Your task to perform on an android device: What's a good restaurant in Phoenix? Image 0: 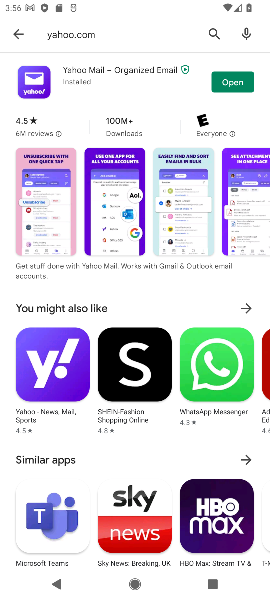
Step 0: press home button
Your task to perform on an android device: What's a good restaurant in Phoenix? Image 1: 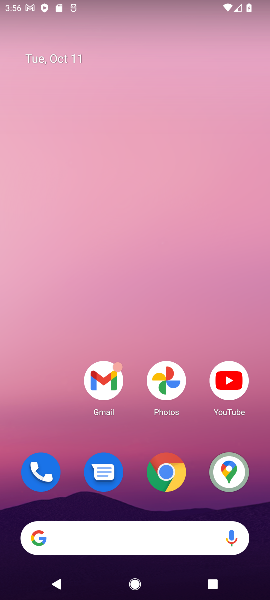
Step 1: click (131, 540)
Your task to perform on an android device: What's a good restaurant in Phoenix? Image 2: 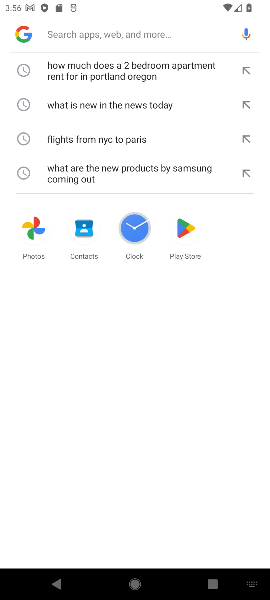
Step 2: type "What's a good restaurant in Phoenix?"
Your task to perform on an android device: What's a good restaurant in Phoenix? Image 3: 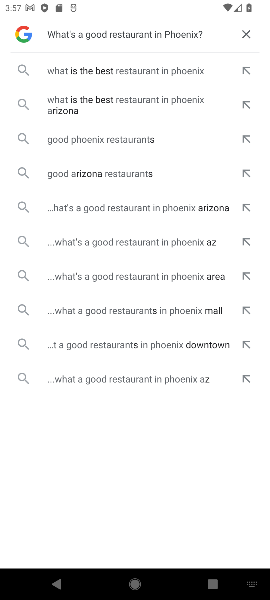
Step 3: click (134, 73)
Your task to perform on an android device: What's a good restaurant in Phoenix? Image 4: 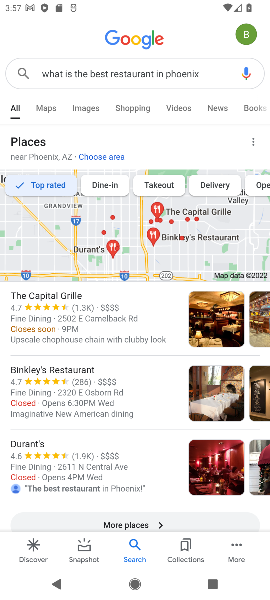
Step 4: task complete